Your task to perform on an android device: turn on location history Image 0: 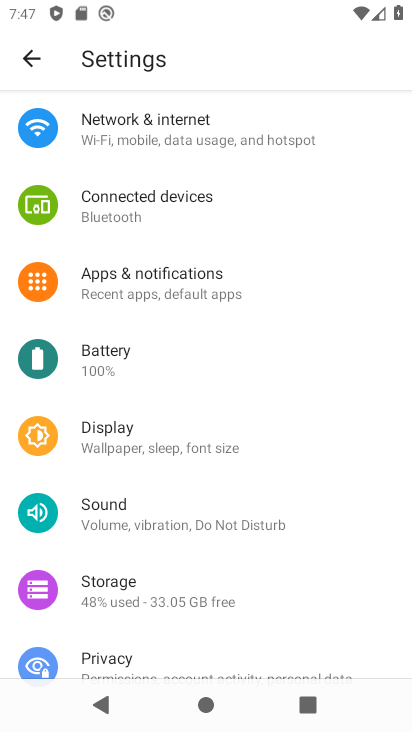
Step 0: drag from (346, 587) to (338, 208)
Your task to perform on an android device: turn on location history Image 1: 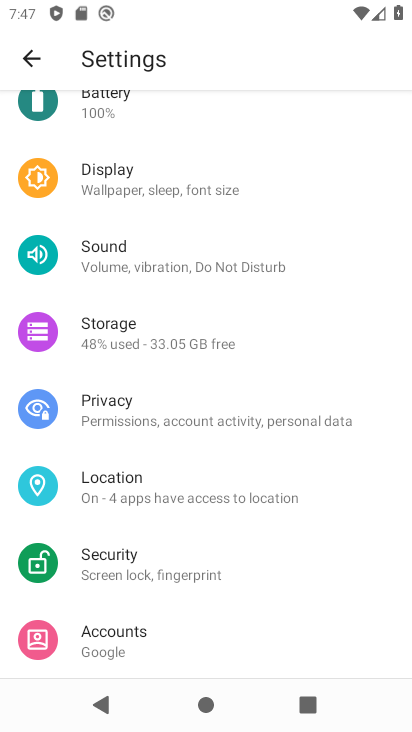
Step 1: drag from (358, 651) to (368, 251)
Your task to perform on an android device: turn on location history Image 2: 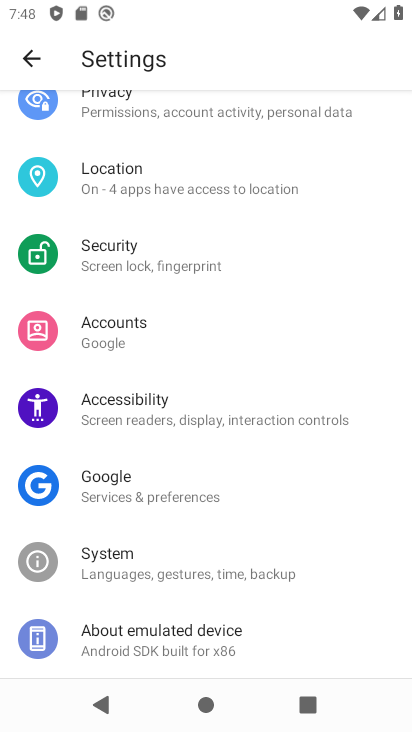
Step 2: click (111, 186)
Your task to perform on an android device: turn on location history Image 3: 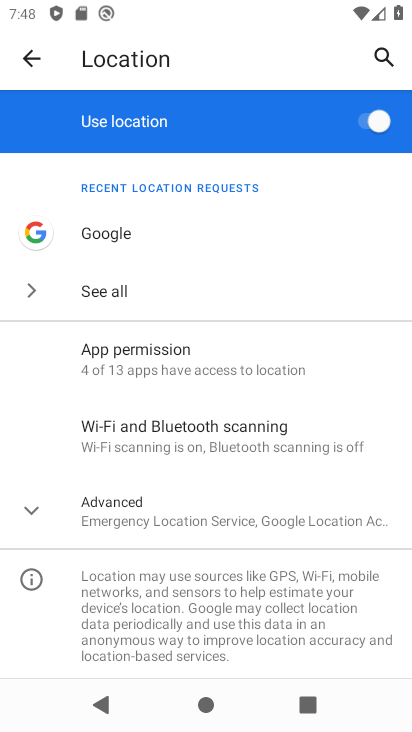
Step 3: task complete